Your task to perform on an android device: search for starred emails in the gmail app Image 0: 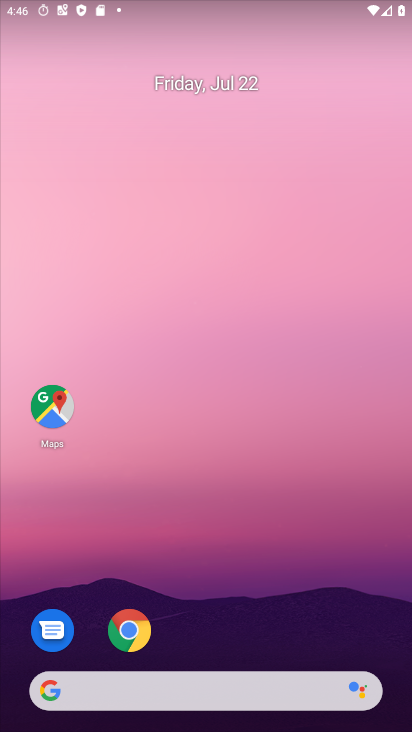
Step 0: drag from (191, 703) to (175, 94)
Your task to perform on an android device: search for starred emails in the gmail app Image 1: 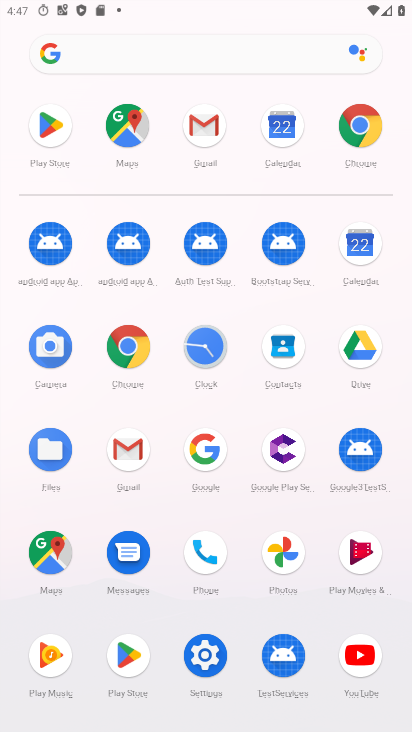
Step 1: click (138, 450)
Your task to perform on an android device: search for starred emails in the gmail app Image 2: 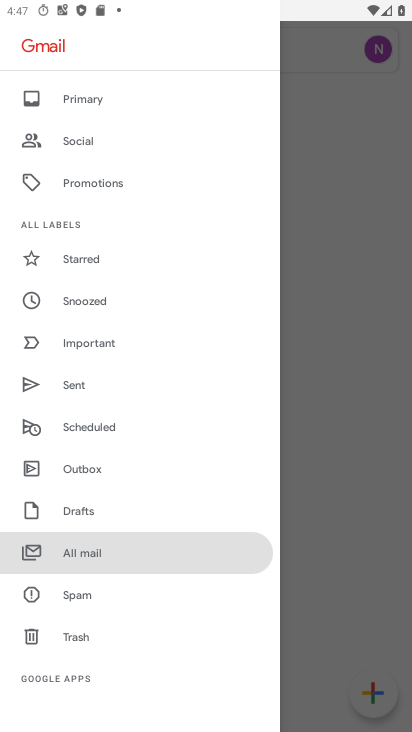
Step 2: click (103, 252)
Your task to perform on an android device: search for starred emails in the gmail app Image 3: 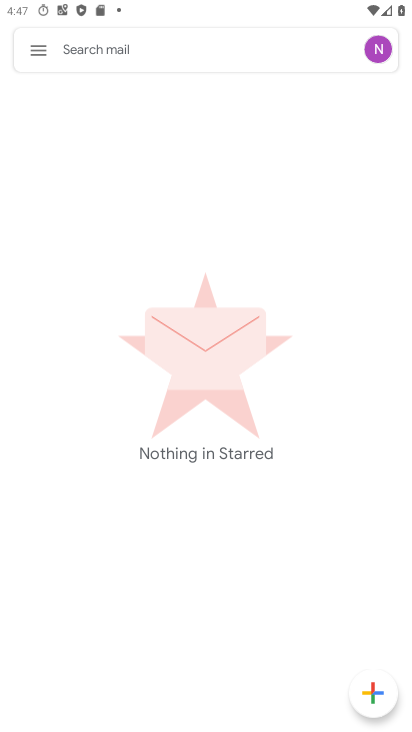
Step 3: task complete